Your task to perform on an android device: What's the latest technology news? Image 0: 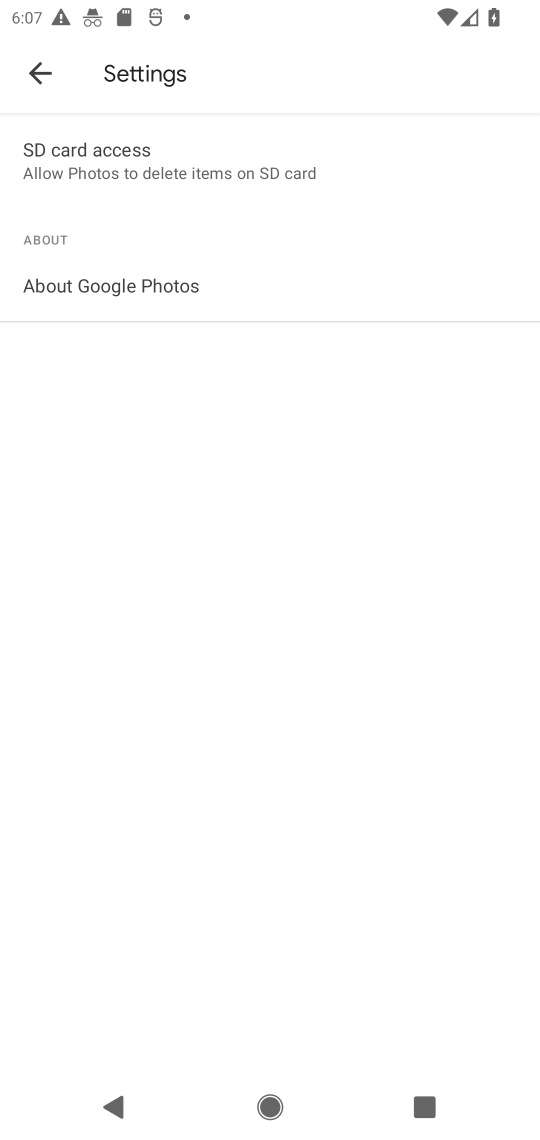
Step 0: press home button
Your task to perform on an android device: What's the latest technology news? Image 1: 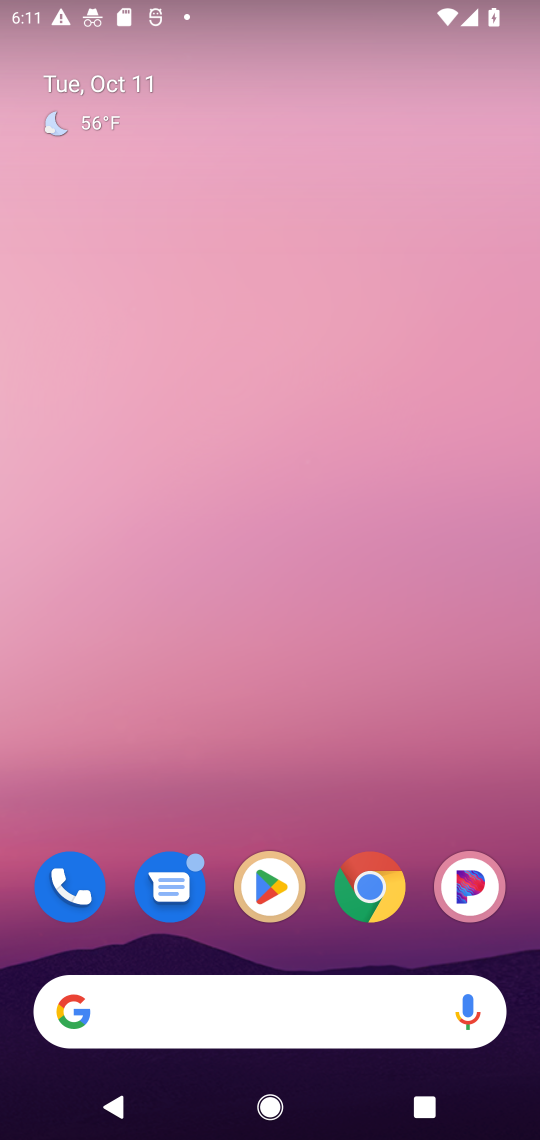
Step 1: click (303, 1009)
Your task to perform on an android device: What's the latest technology news? Image 2: 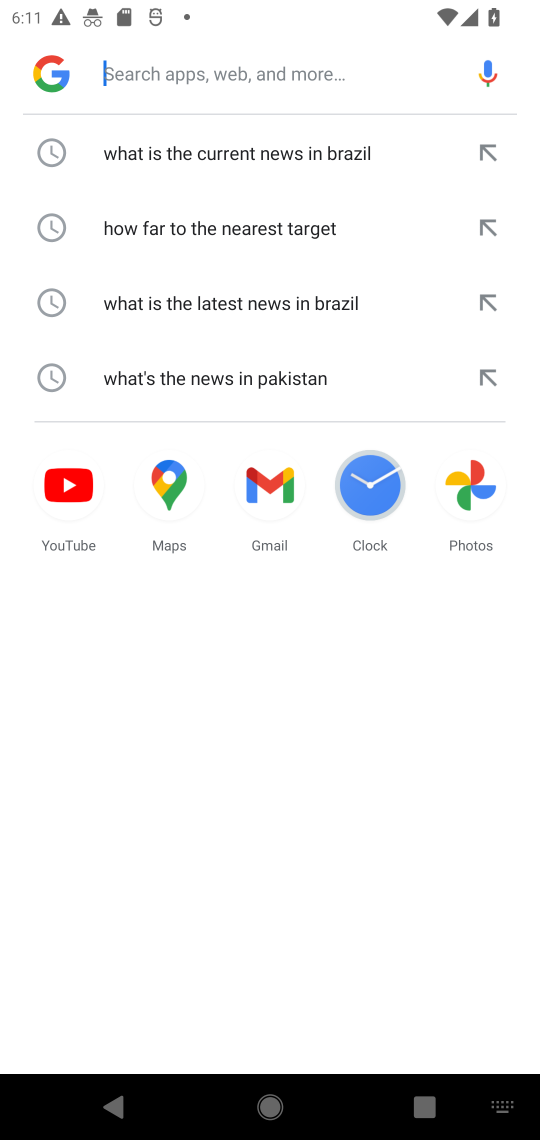
Step 2: type "What's the latest technology news?"
Your task to perform on an android device: What's the latest technology news? Image 3: 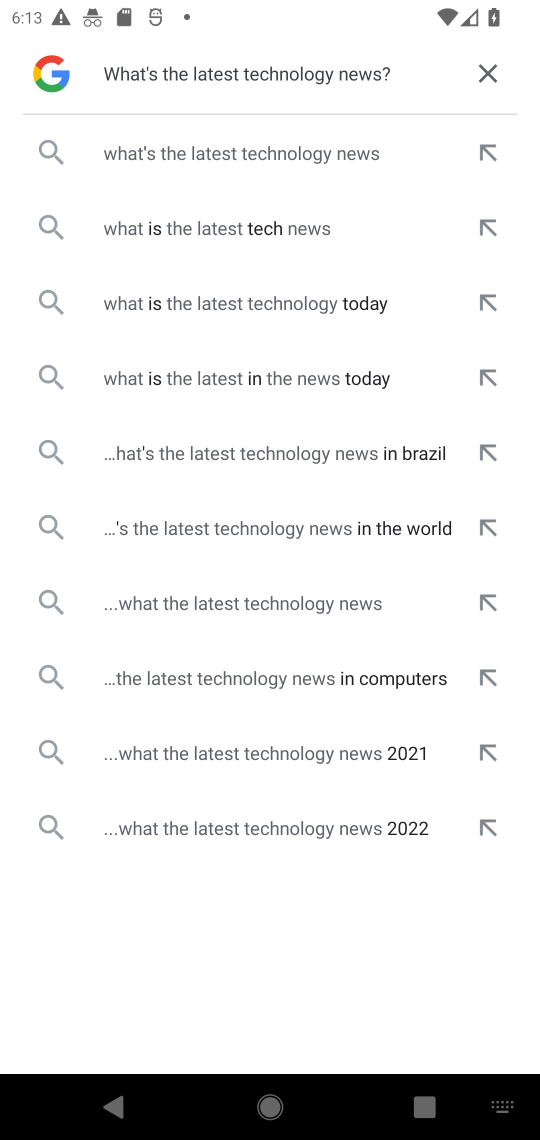
Step 3: click (302, 160)
Your task to perform on an android device: What's the latest technology news? Image 4: 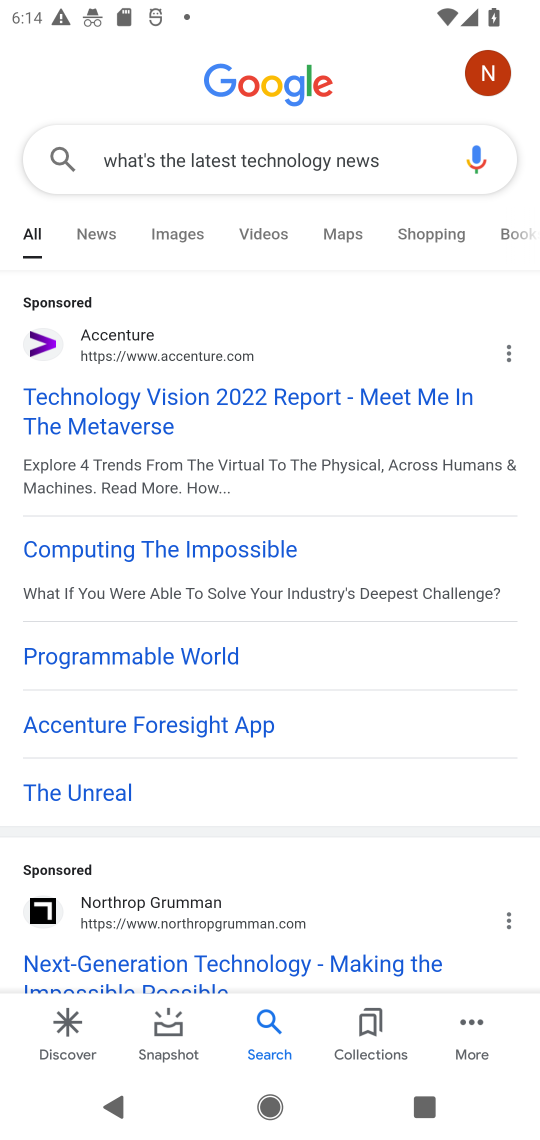
Step 4: task complete